Your task to perform on an android device: Turn off the flashlight Image 0: 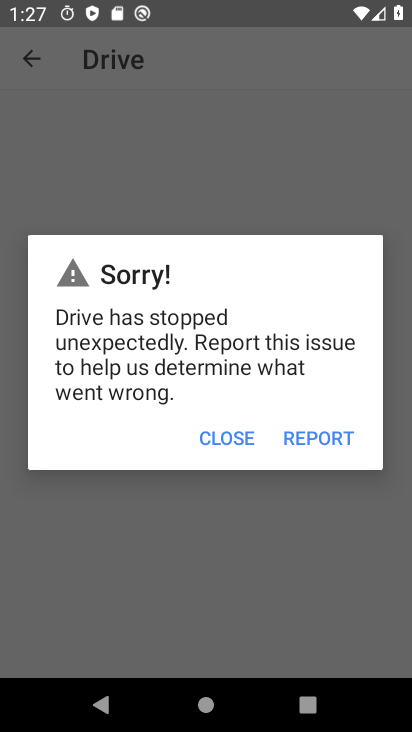
Step 0: click (227, 441)
Your task to perform on an android device: Turn off the flashlight Image 1: 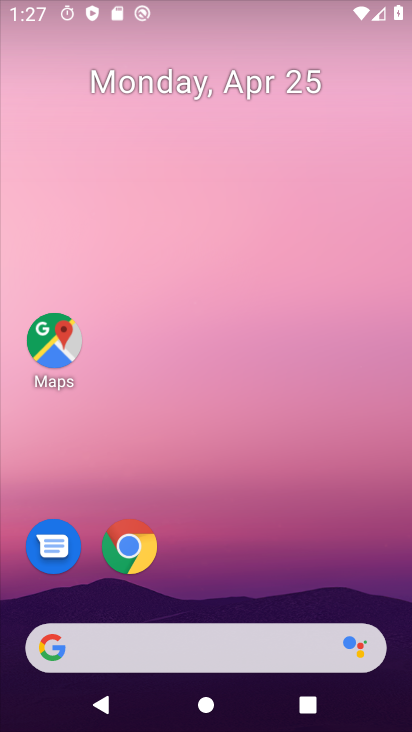
Step 1: press home button
Your task to perform on an android device: Turn off the flashlight Image 2: 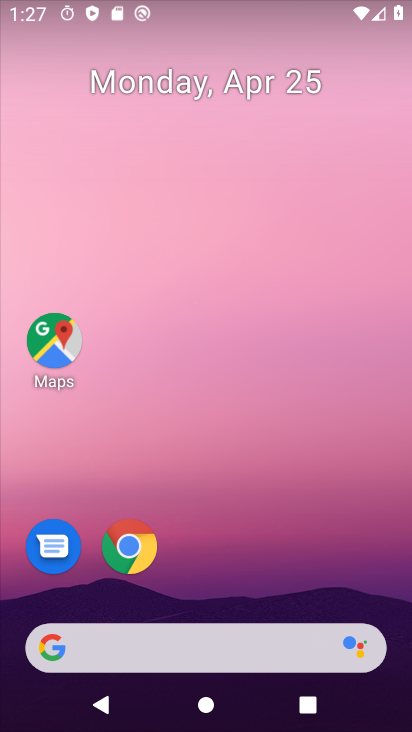
Step 2: drag from (221, 591) to (153, 24)
Your task to perform on an android device: Turn off the flashlight Image 3: 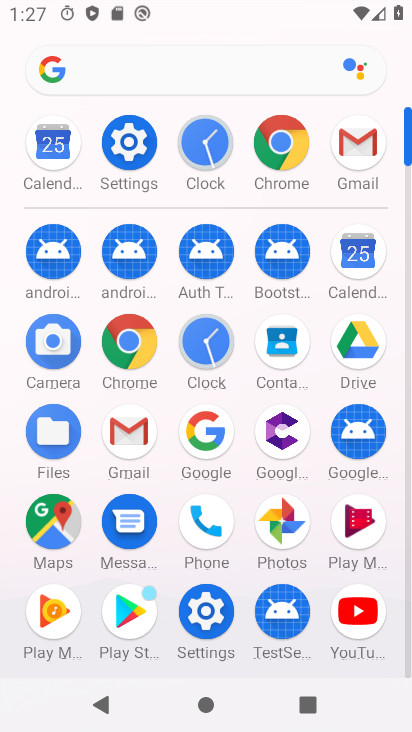
Step 3: click (218, 617)
Your task to perform on an android device: Turn off the flashlight Image 4: 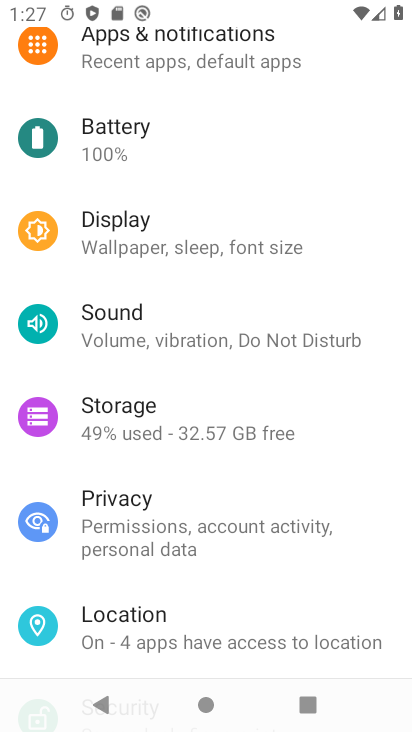
Step 4: task complete